Your task to perform on an android device: read, delete, or share a saved page in the chrome app Image 0: 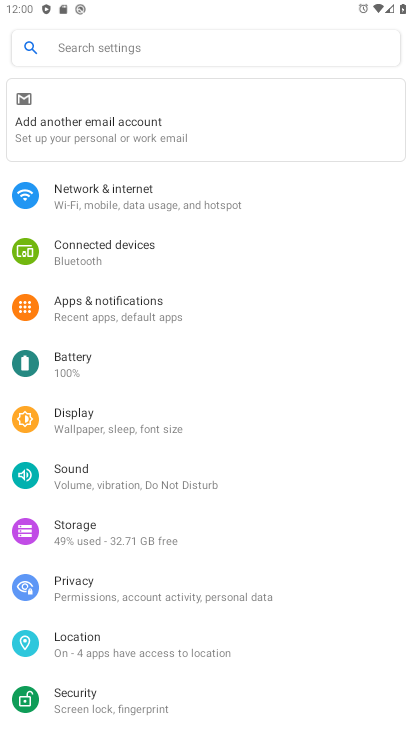
Step 0: press home button
Your task to perform on an android device: read, delete, or share a saved page in the chrome app Image 1: 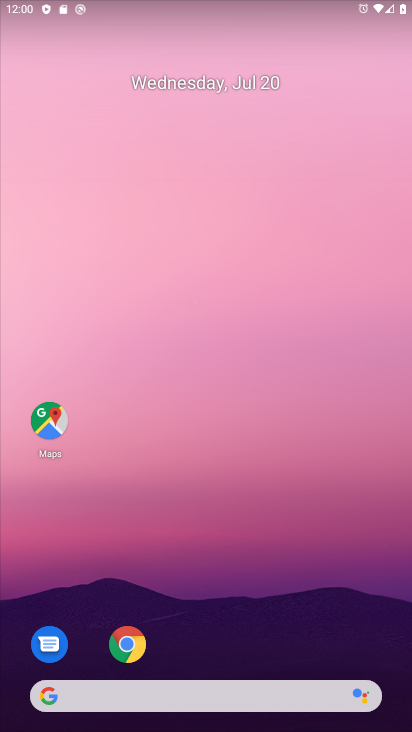
Step 1: drag from (248, 642) to (254, 115)
Your task to perform on an android device: read, delete, or share a saved page in the chrome app Image 2: 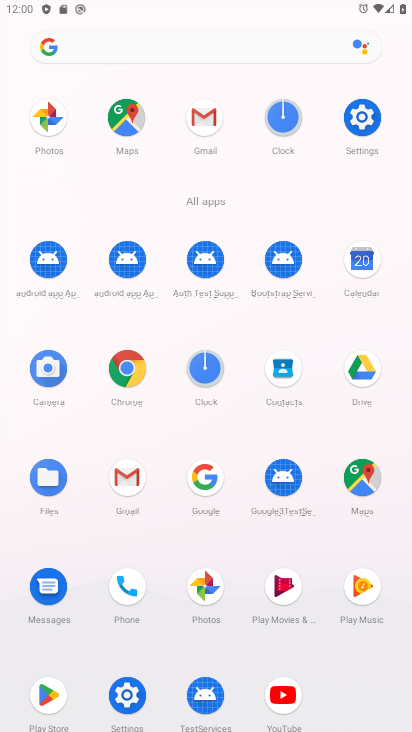
Step 2: click (131, 397)
Your task to perform on an android device: read, delete, or share a saved page in the chrome app Image 3: 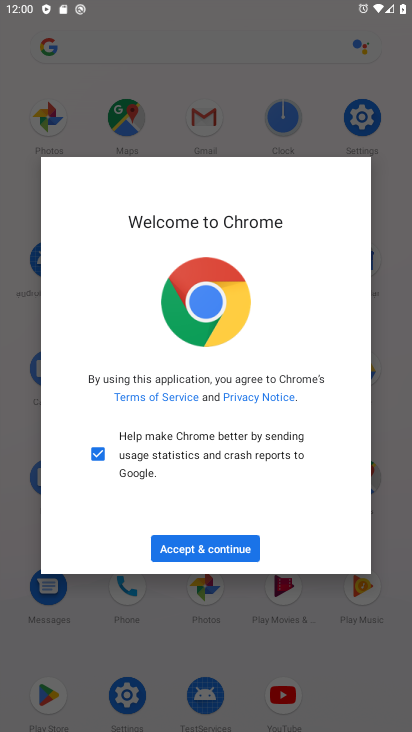
Step 3: click (221, 559)
Your task to perform on an android device: read, delete, or share a saved page in the chrome app Image 4: 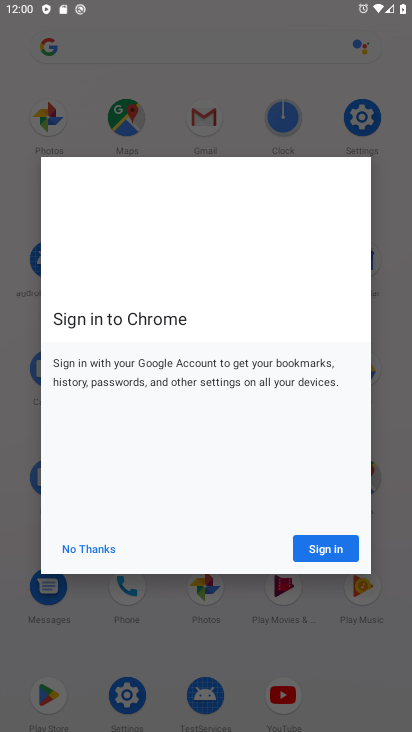
Step 4: click (315, 556)
Your task to perform on an android device: read, delete, or share a saved page in the chrome app Image 5: 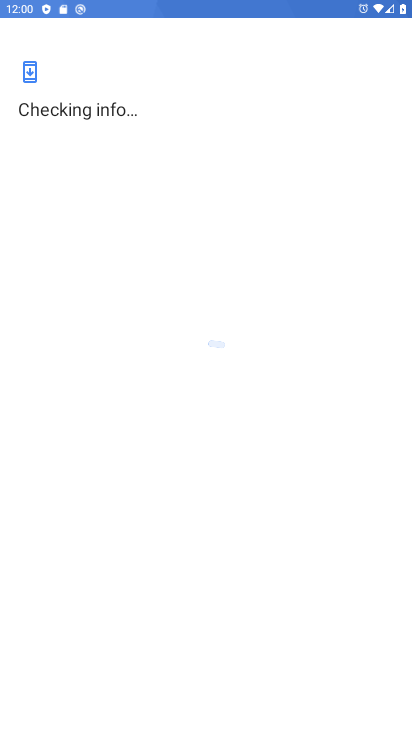
Step 5: task complete